Your task to perform on an android device: Go to notification settings Image 0: 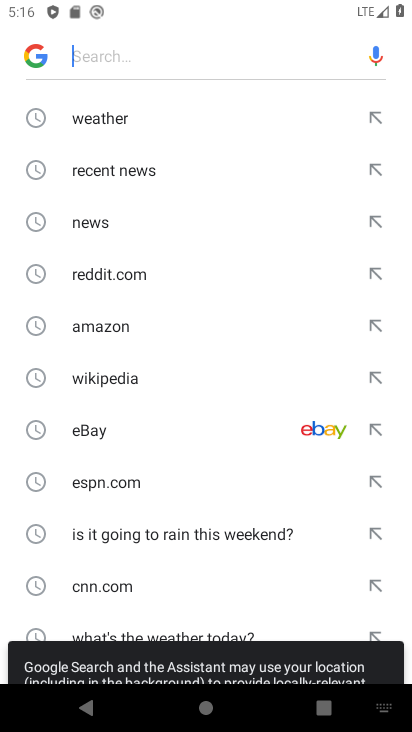
Step 0: press home button
Your task to perform on an android device: Go to notification settings Image 1: 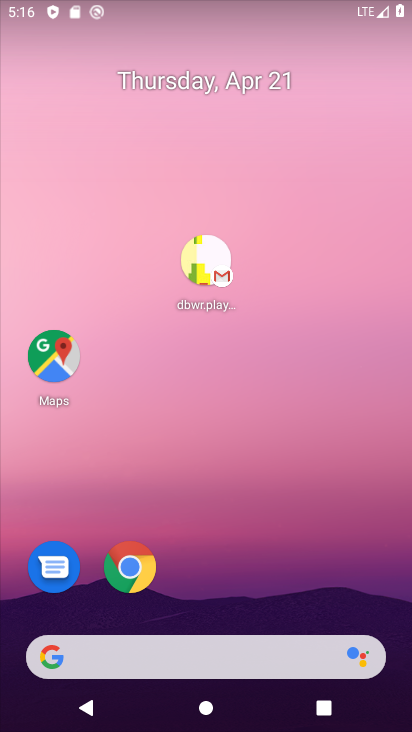
Step 1: drag from (243, 551) to (310, 3)
Your task to perform on an android device: Go to notification settings Image 2: 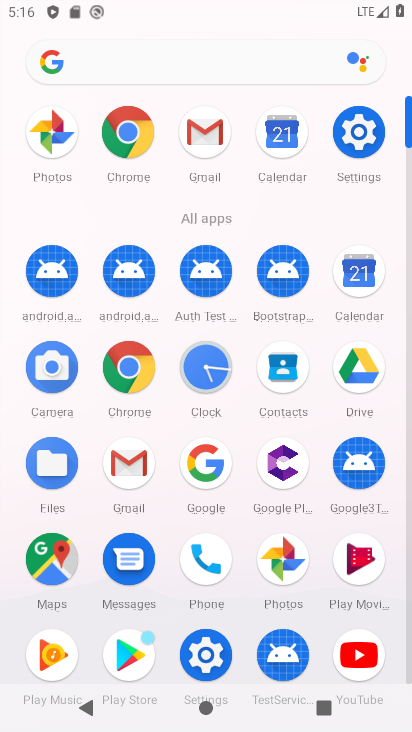
Step 2: click (201, 662)
Your task to perform on an android device: Go to notification settings Image 3: 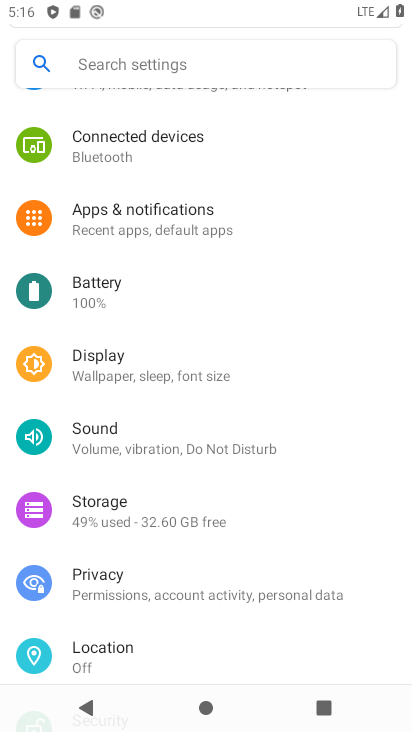
Step 3: click (133, 230)
Your task to perform on an android device: Go to notification settings Image 4: 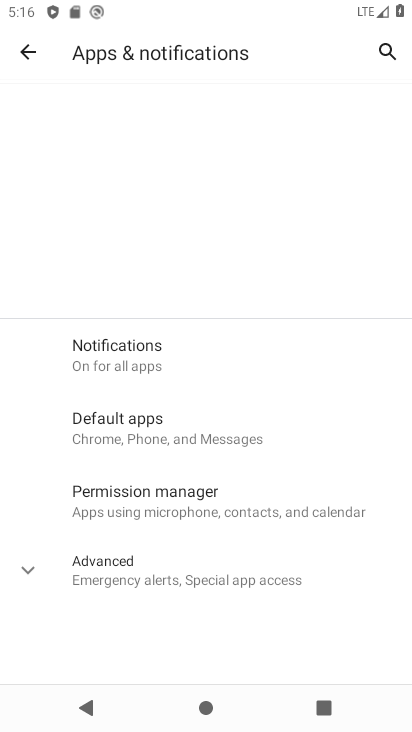
Step 4: click (106, 362)
Your task to perform on an android device: Go to notification settings Image 5: 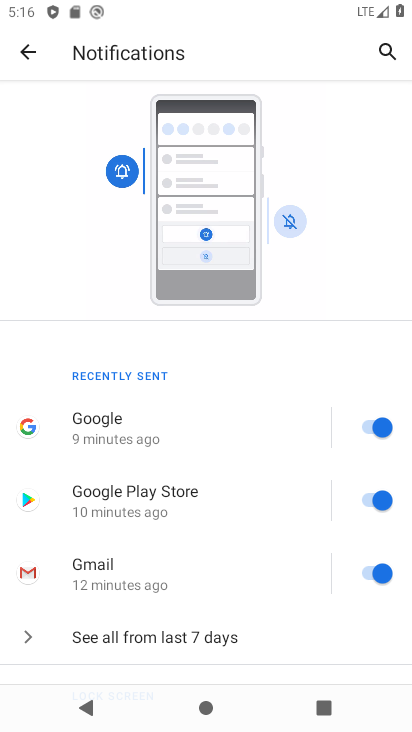
Step 5: task complete